Your task to perform on an android device: toggle javascript in the chrome app Image 0: 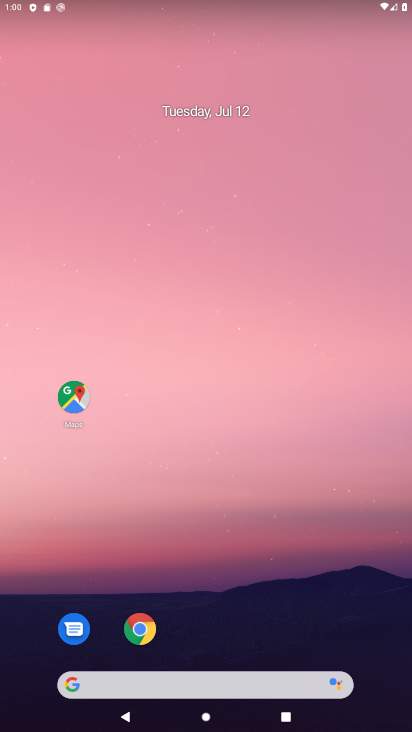
Step 0: click (141, 624)
Your task to perform on an android device: toggle javascript in the chrome app Image 1: 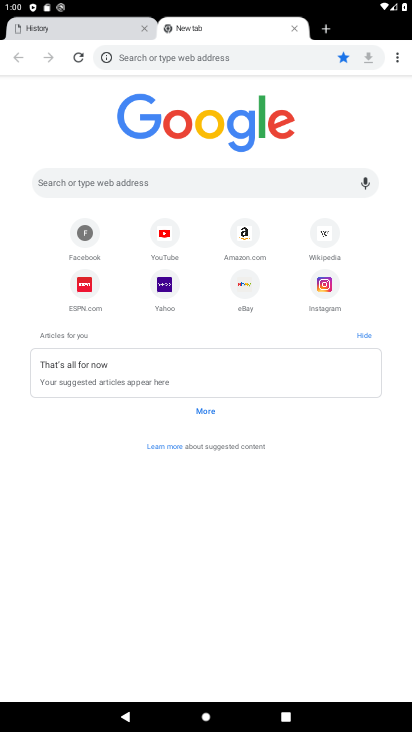
Step 1: click (395, 59)
Your task to perform on an android device: toggle javascript in the chrome app Image 2: 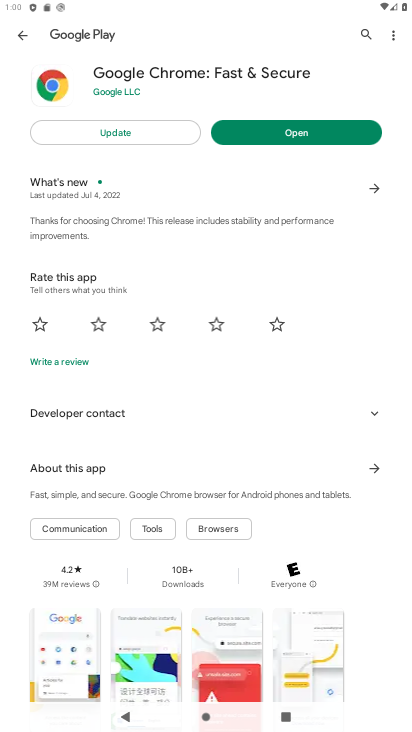
Step 2: press back button
Your task to perform on an android device: toggle javascript in the chrome app Image 3: 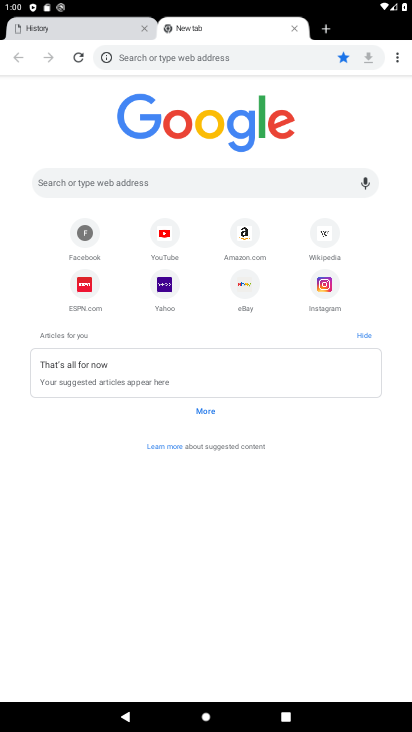
Step 3: click (397, 60)
Your task to perform on an android device: toggle javascript in the chrome app Image 4: 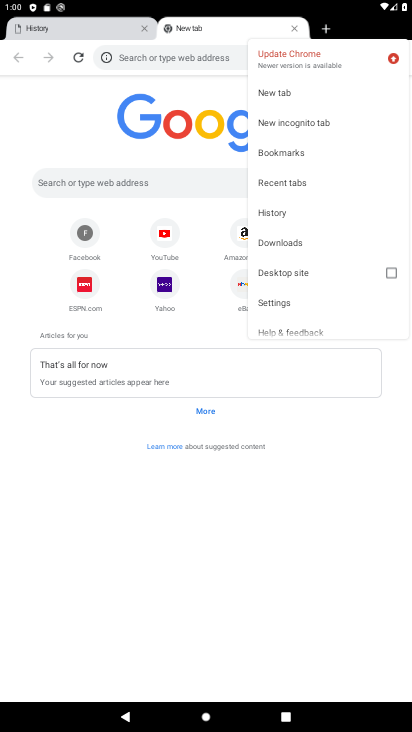
Step 4: click (299, 298)
Your task to perform on an android device: toggle javascript in the chrome app Image 5: 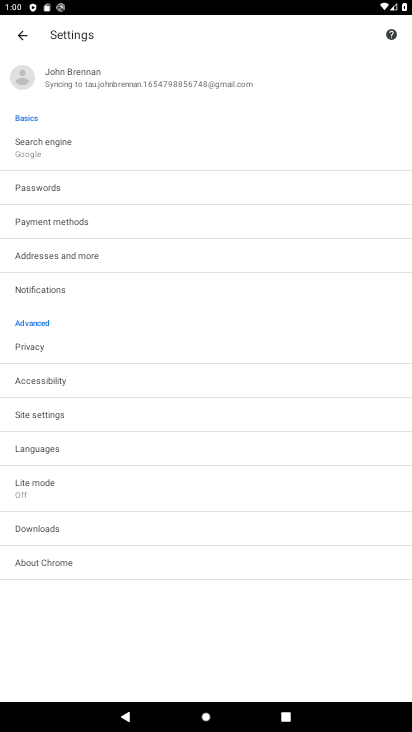
Step 5: click (95, 414)
Your task to perform on an android device: toggle javascript in the chrome app Image 6: 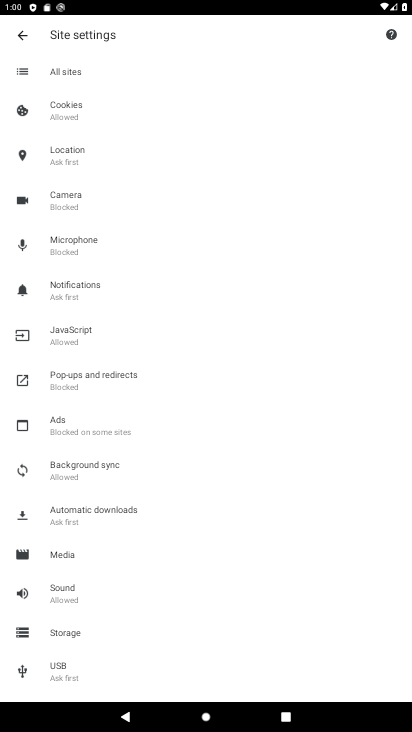
Step 6: click (101, 333)
Your task to perform on an android device: toggle javascript in the chrome app Image 7: 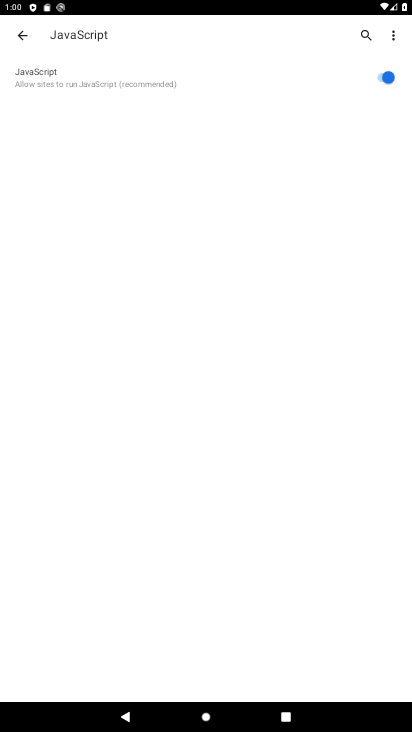
Step 7: click (387, 75)
Your task to perform on an android device: toggle javascript in the chrome app Image 8: 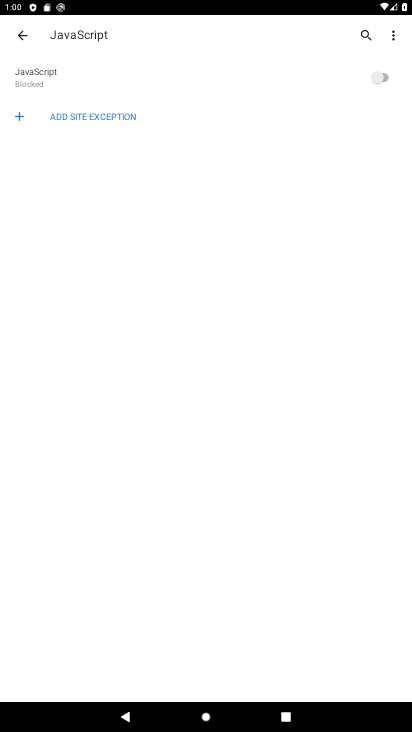
Step 8: task complete